Your task to perform on an android device: What is the recent news? Image 0: 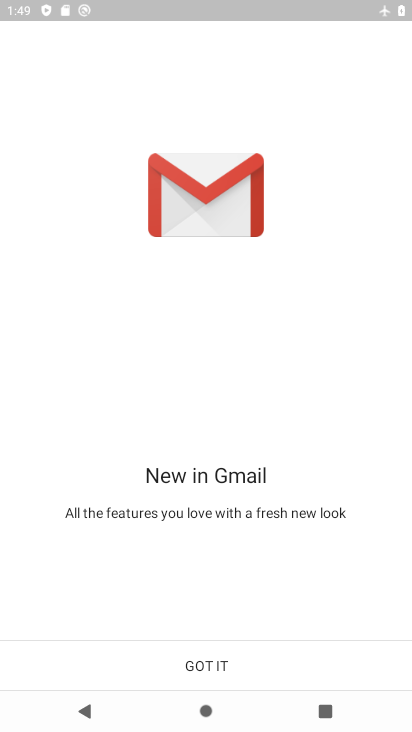
Step 0: press home button
Your task to perform on an android device: What is the recent news? Image 1: 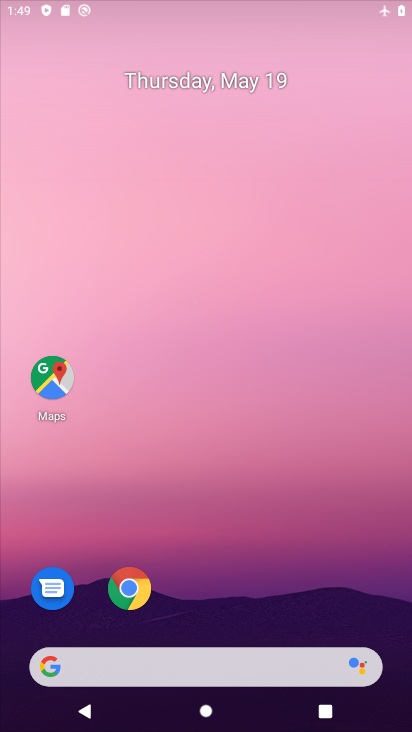
Step 1: drag from (216, 586) to (236, 63)
Your task to perform on an android device: What is the recent news? Image 2: 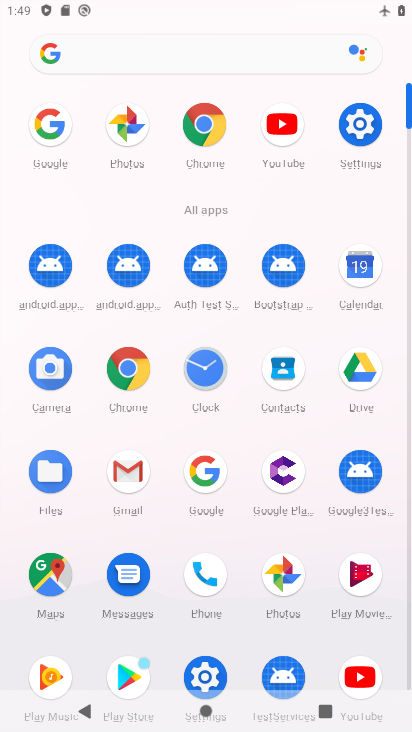
Step 2: click (52, 123)
Your task to perform on an android device: What is the recent news? Image 3: 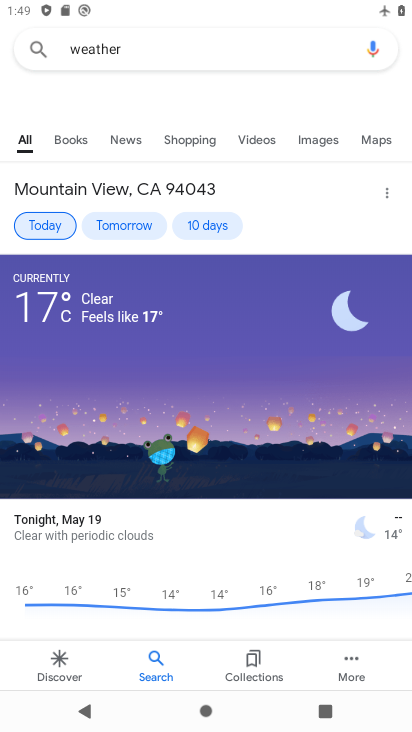
Step 3: click (223, 38)
Your task to perform on an android device: What is the recent news? Image 4: 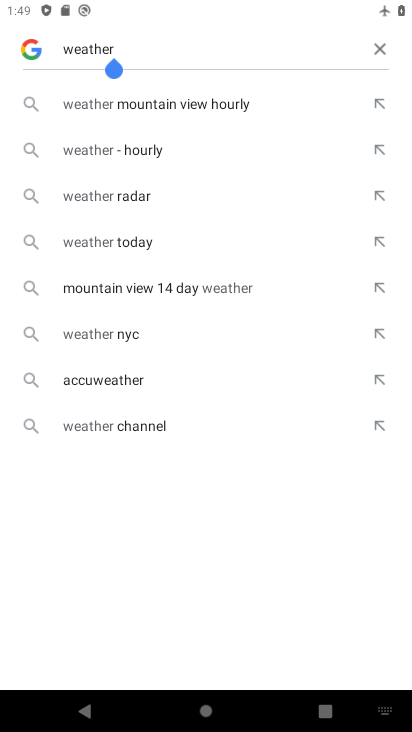
Step 4: click (385, 49)
Your task to perform on an android device: What is the recent news? Image 5: 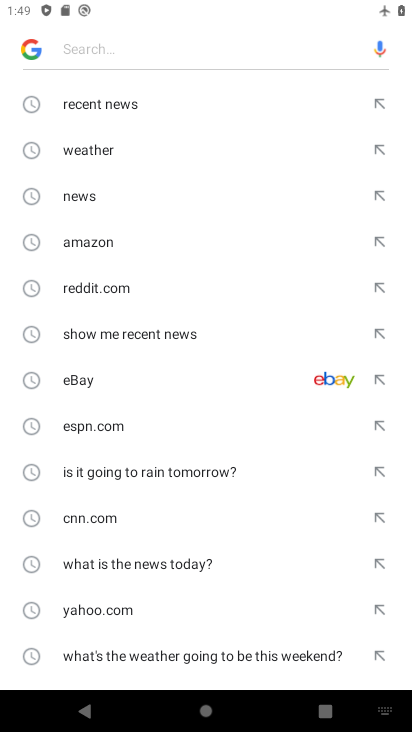
Step 5: type "recent news"
Your task to perform on an android device: What is the recent news? Image 6: 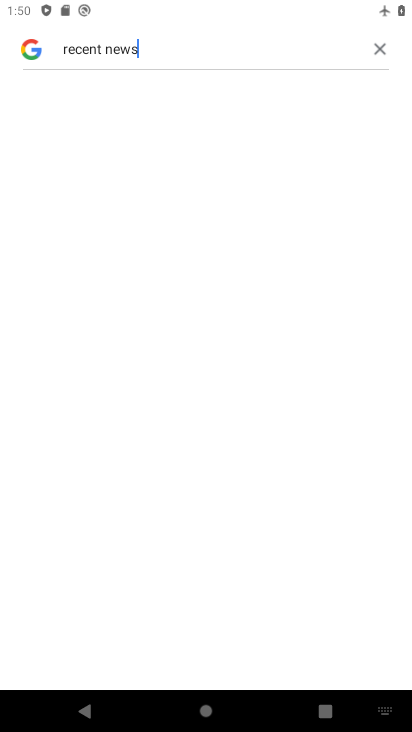
Step 6: task complete